Your task to perform on an android device: What's US dollar exchange rate against the Chinese Yuan? Image 0: 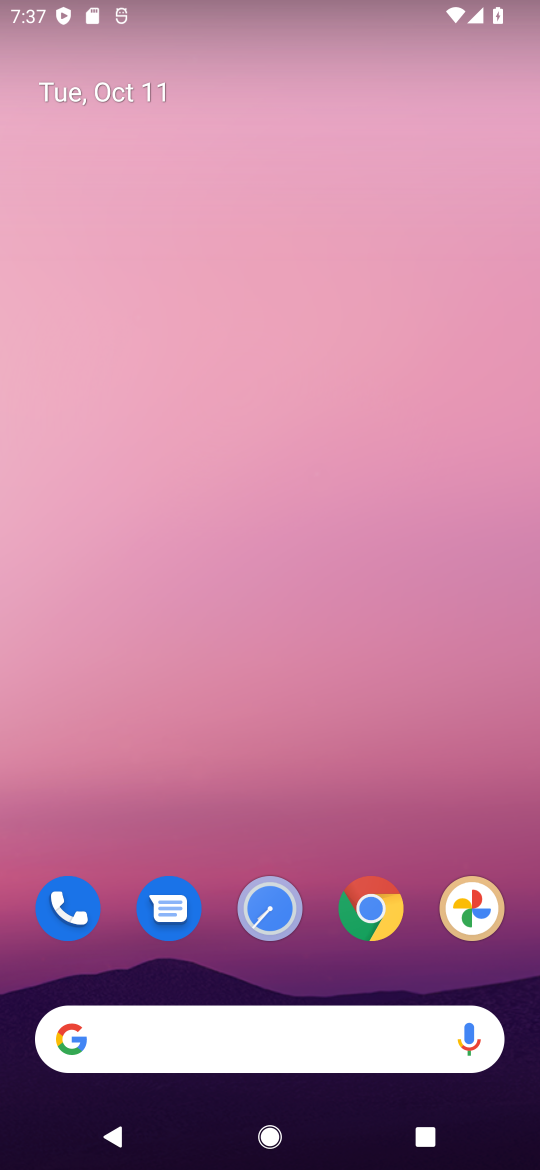
Step 0: click (359, 1042)
Your task to perform on an android device: What's US dollar exchange rate against the Chinese Yuan? Image 1: 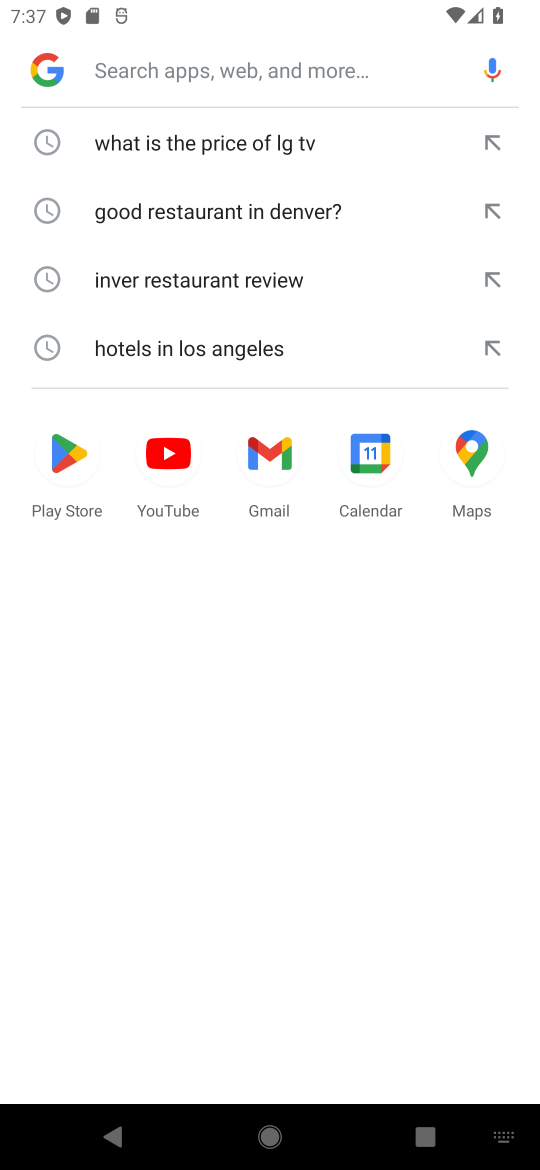
Step 1: type "What's US dollar exchange rate against the Chinese Yuan?"
Your task to perform on an android device: What's US dollar exchange rate against the Chinese Yuan? Image 2: 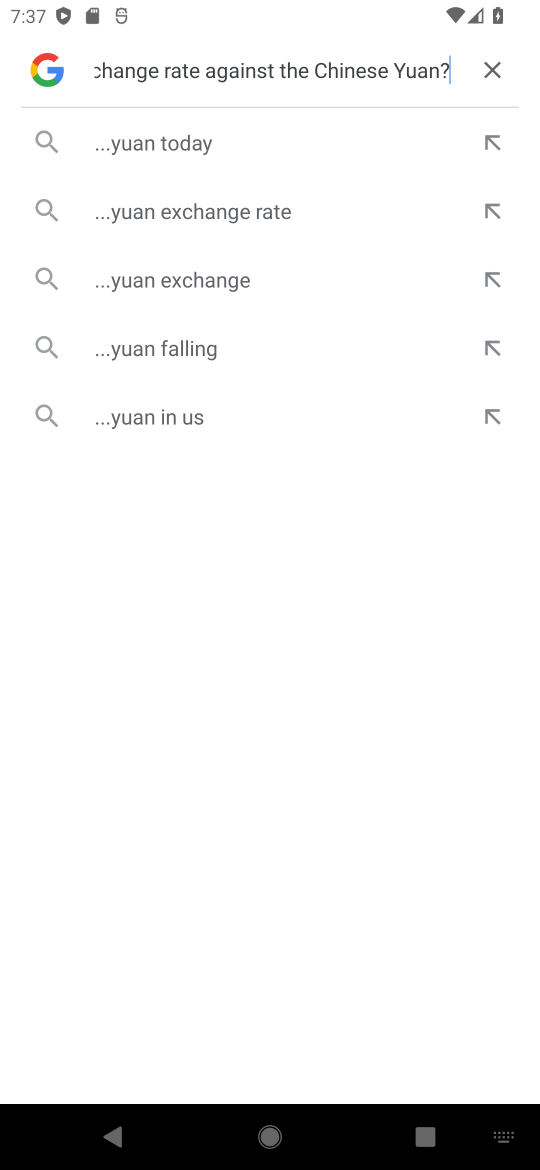
Step 2: click (157, 138)
Your task to perform on an android device: What's US dollar exchange rate against the Chinese Yuan? Image 3: 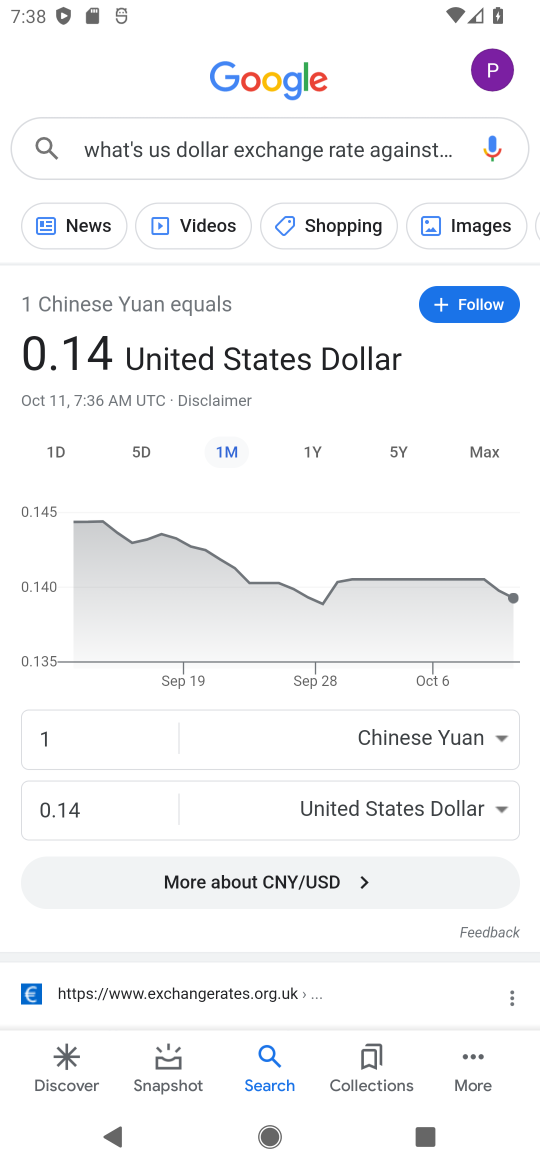
Step 3: task complete